Your task to perform on an android device: Open the calendar app, open the side menu, and click the "Day" option Image 0: 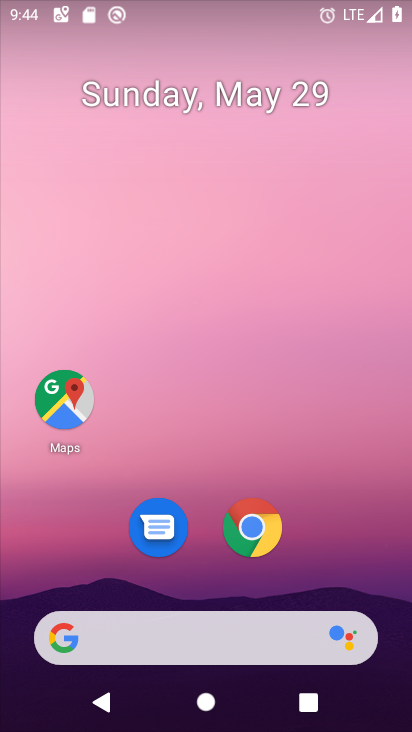
Step 0: press home button
Your task to perform on an android device: Open the calendar app, open the side menu, and click the "Day" option Image 1: 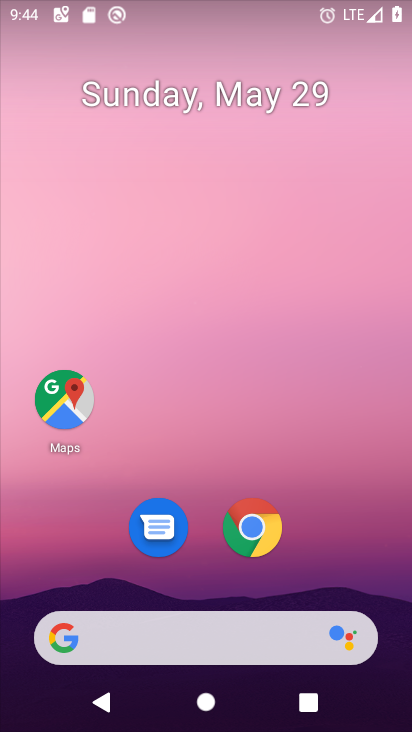
Step 1: drag from (205, 585) to (227, 30)
Your task to perform on an android device: Open the calendar app, open the side menu, and click the "Day" option Image 2: 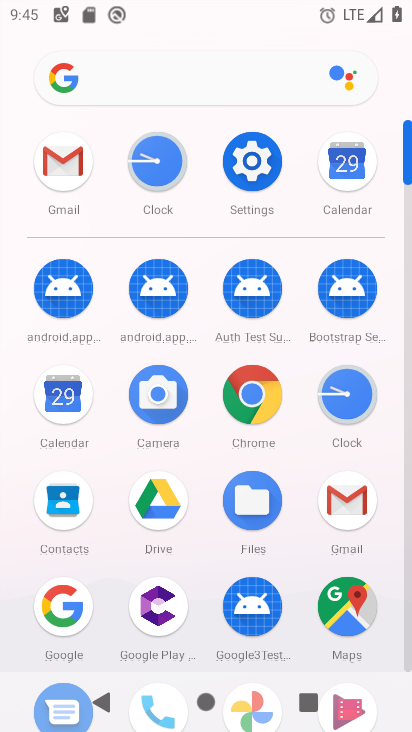
Step 2: click (63, 390)
Your task to perform on an android device: Open the calendar app, open the side menu, and click the "Day" option Image 3: 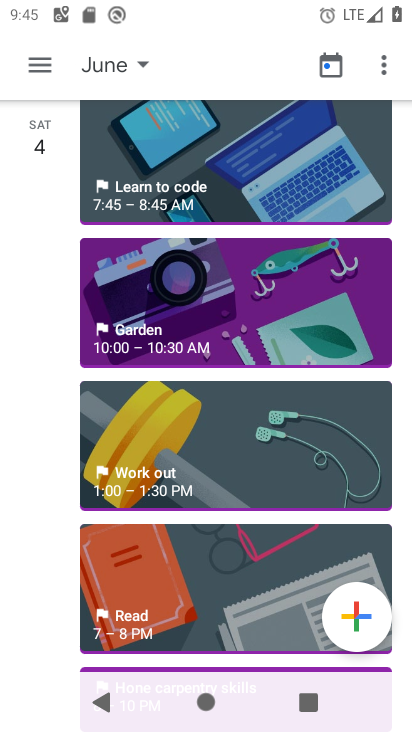
Step 3: click (38, 67)
Your task to perform on an android device: Open the calendar app, open the side menu, and click the "Day" option Image 4: 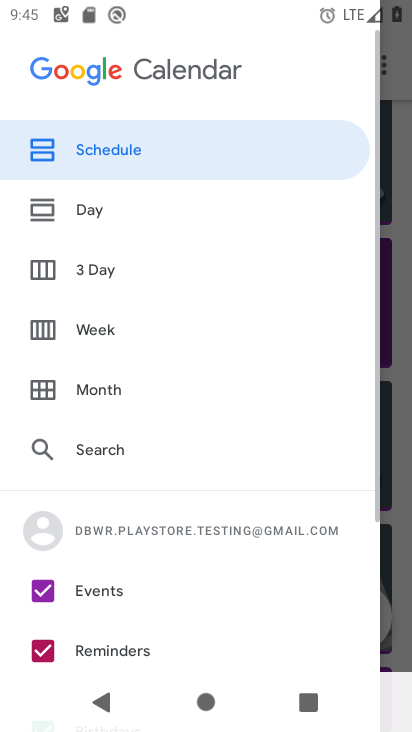
Step 4: click (67, 210)
Your task to perform on an android device: Open the calendar app, open the side menu, and click the "Day" option Image 5: 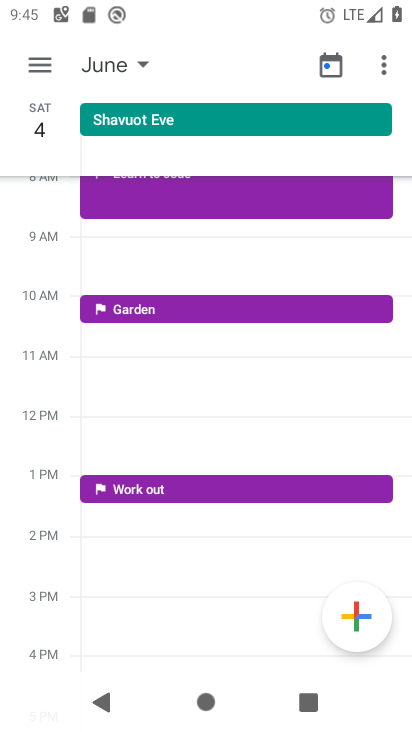
Step 5: task complete